Your task to perform on an android device: check storage Image 0: 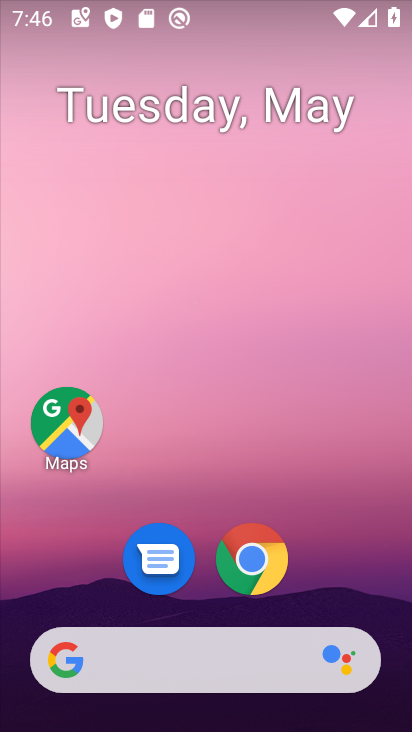
Step 0: drag from (315, 544) to (358, 28)
Your task to perform on an android device: check storage Image 1: 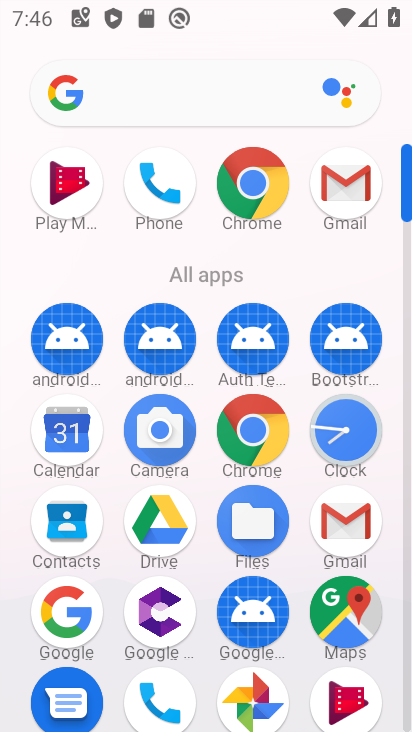
Step 1: drag from (398, 455) to (389, 57)
Your task to perform on an android device: check storage Image 2: 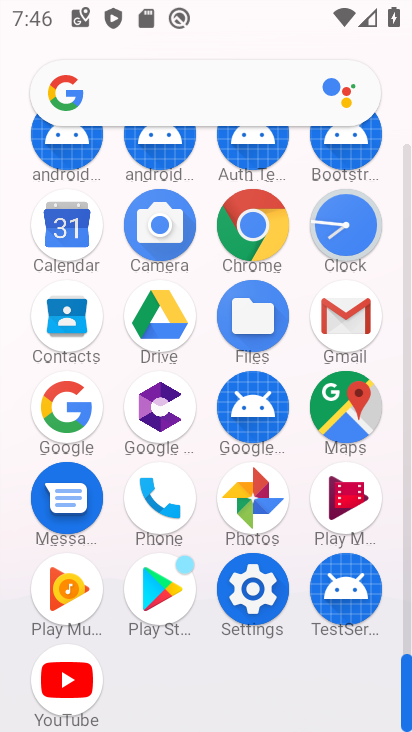
Step 2: click (253, 586)
Your task to perform on an android device: check storage Image 3: 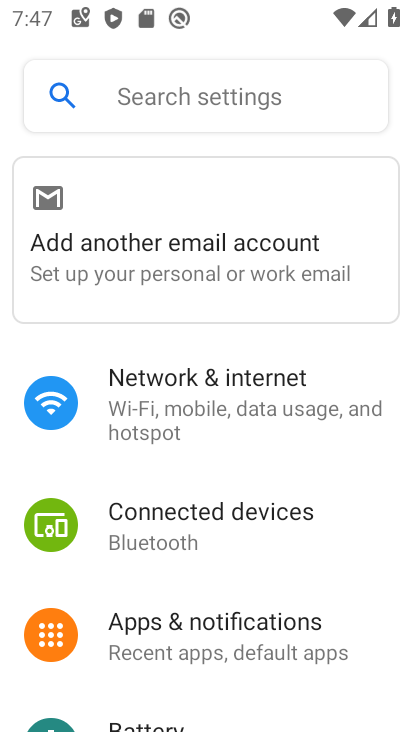
Step 3: drag from (157, 588) to (211, 130)
Your task to perform on an android device: check storage Image 4: 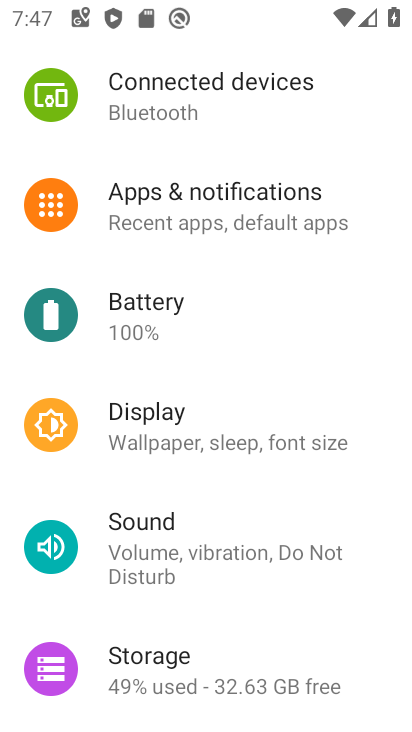
Step 4: drag from (255, 588) to (331, 160)
Your task to perform on an android device: check storage Image 5: 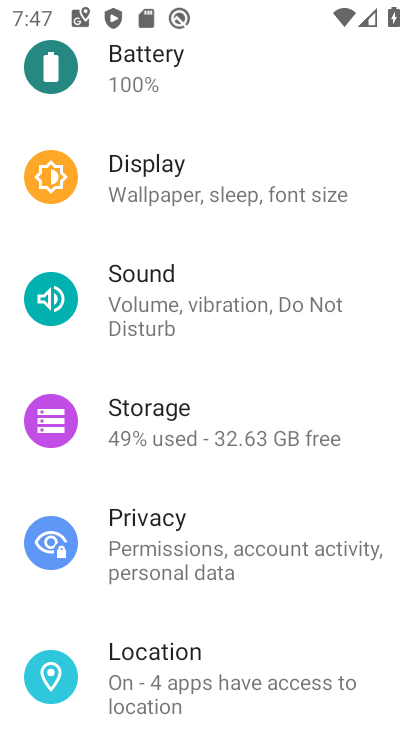
Step 5: drag from (251, 610) to (250, 376)
Your task to perform on an android device: check storage Image 6: 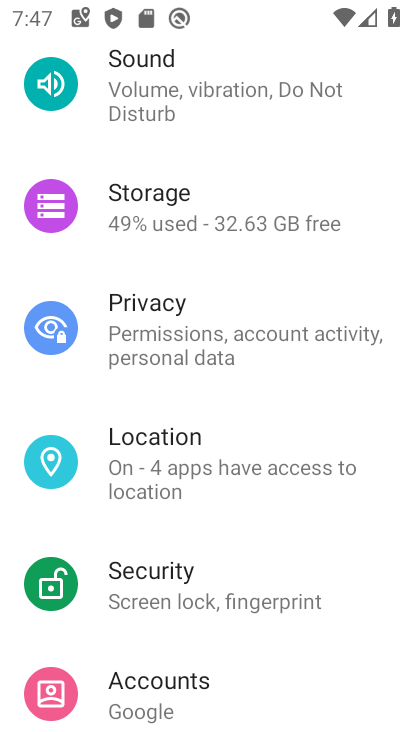
Step 6: click (181, 210)
Your task to perform on an android device: check storage Image 7: 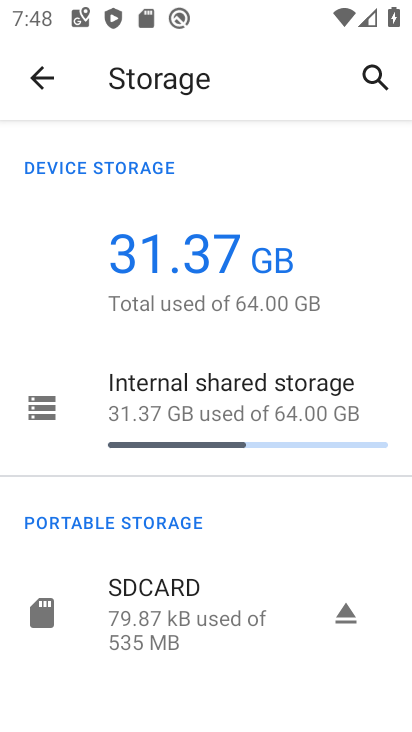
Step 7: click (191, 406)
Your task to perform on an android device: check storage Image 8: 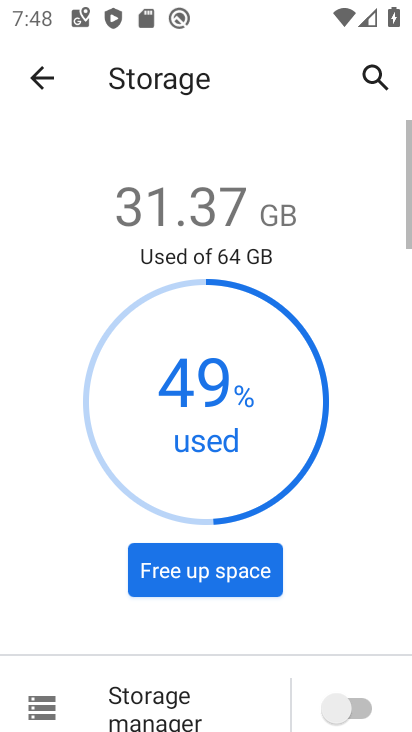
Step 8: task complete